Your task to perform on an android device: What's the weather going to be this weekend? Image 0: 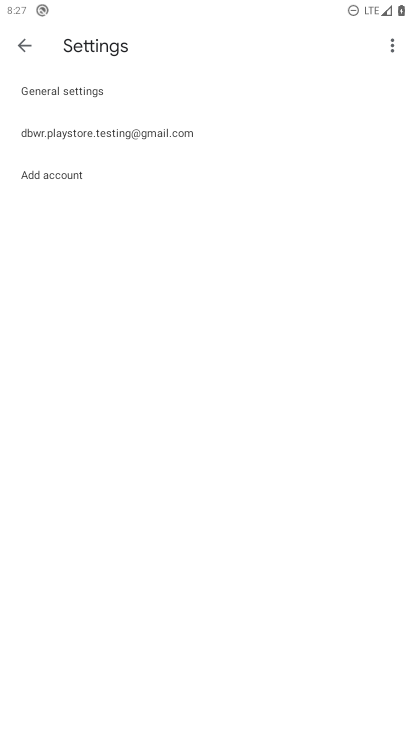
Step 0: press home button
Your task to perform on an android device: What's the weather going to be this weekend? Image 1: 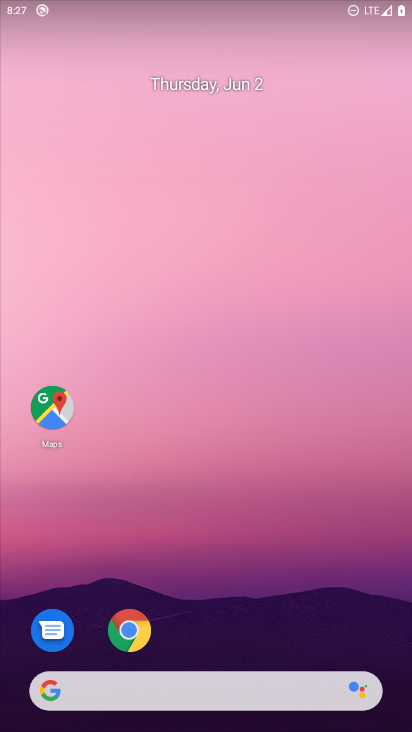
Step 1: click (169, 701)
Your task to perform on an android device: What's the weather going to be this weekend? Image 2: 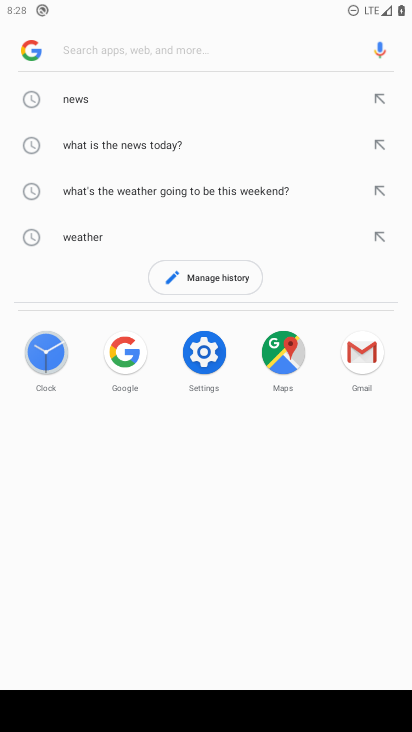
Step 2: type "weather this weekend"
Your task to perform on an android device: What's the weather going to be this weekend? Image 3: 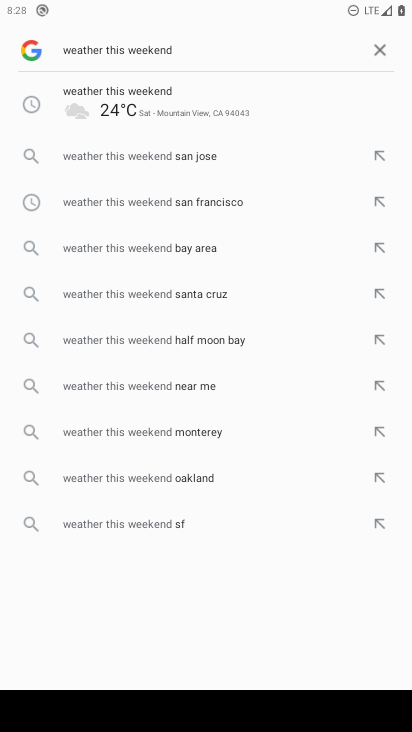
Step 3: click (87, 85)
Your task to perform on an android device: What's the weather going to be this weekend? Image 4: 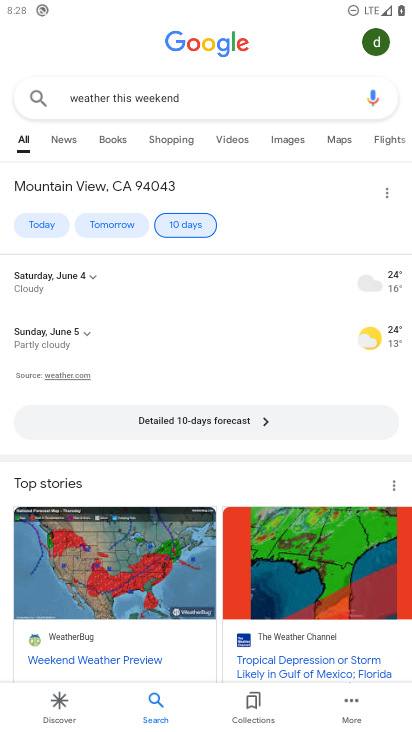
Step 4: task complete